Your task to perform on an android device: Go to Maps Image 0: 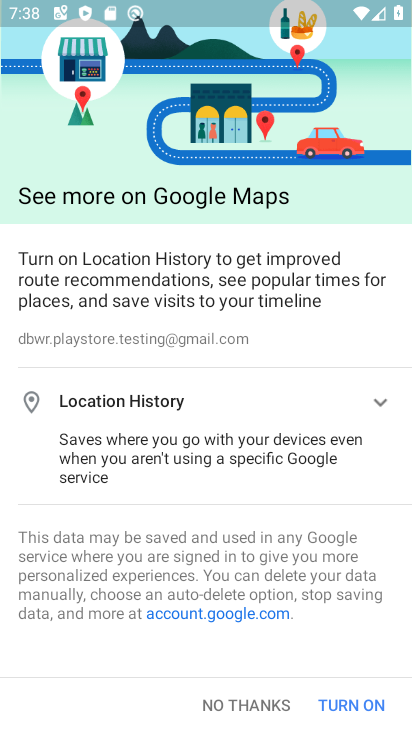
Step 0: click (353, 705)
Your task to perform on an android device: Go to Maps Image 1: 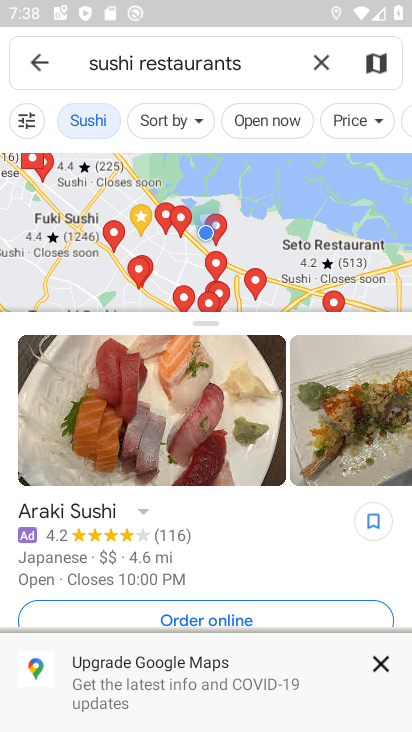
Step 1: task complete